Your task to perform on an android device: clear history in the chrome app Image 0: 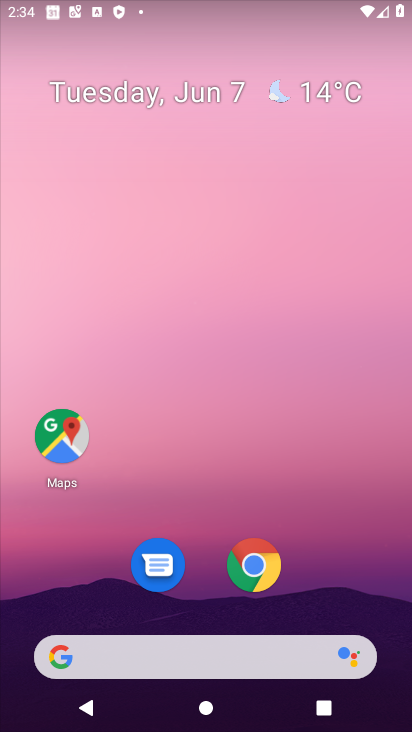
Step 0: drag from (275, 495) to (310, 9)
Your task to perform on an android device: clear history in the chrome app Image 1: 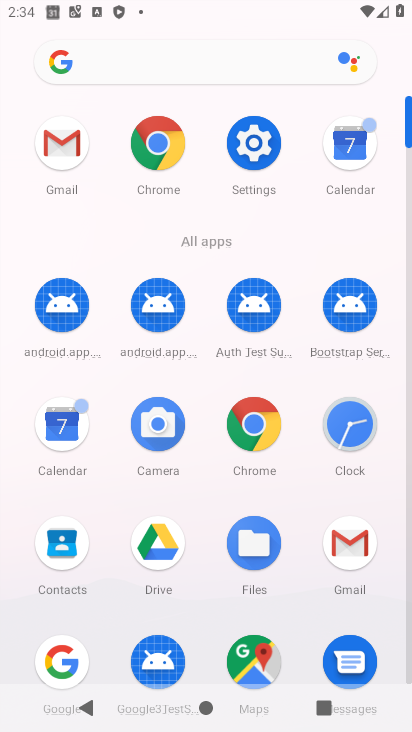
Step 1: click (268, 420)
Your task to perform on an android device: clear history in the chrome app Image 2: 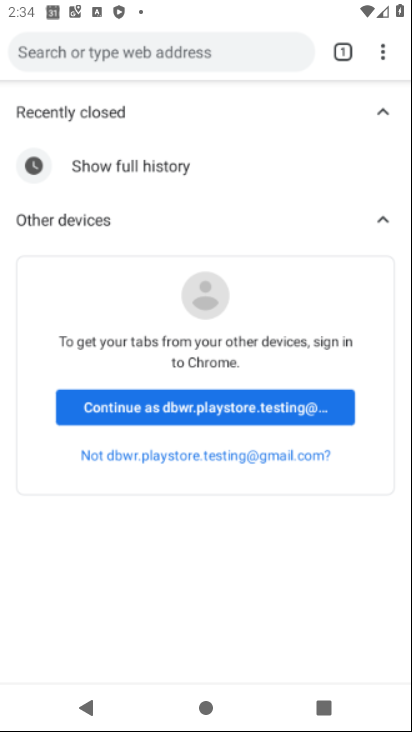
Step 2: drag from (381, 57) to (217, 291)
Your task to perform on an android device: clear history in the chrome app Image 3: 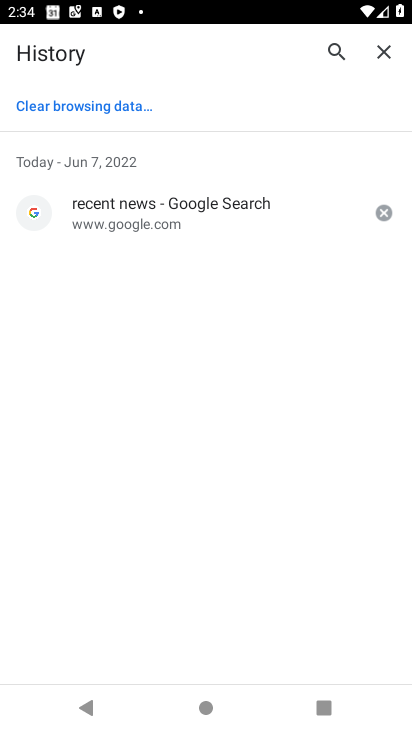
Step 3: click (77, 111)
Your task to perform on an android device: clear history in the chrome app Image 4: 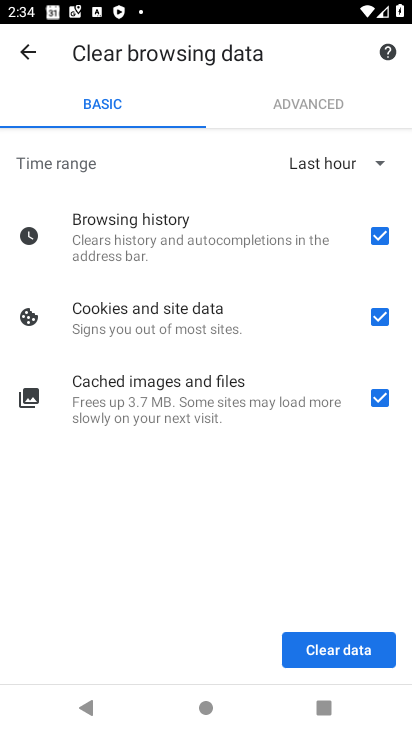
Step 4: click (360, 647)
Your task to perform on an android device: clear history in the chrome app Image 5: 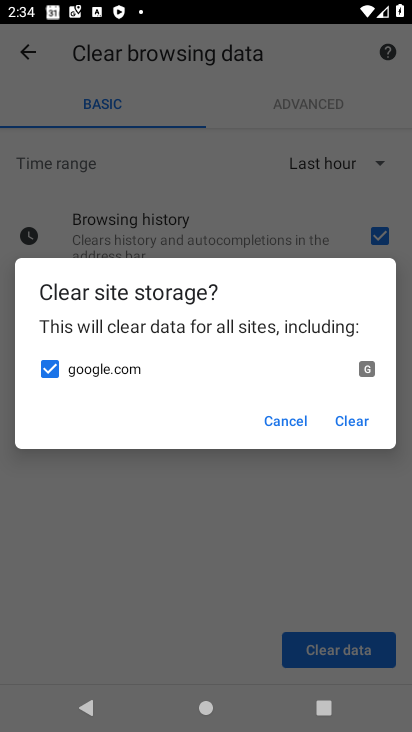
Step 5: click (356, 424)
Your task to perform on an android device: clear history in the chrome app Image 6: 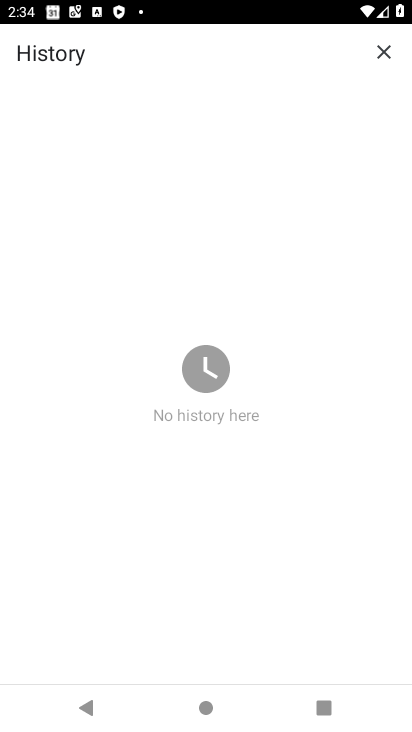
Step 6: task complete